Your task to perform on an android device: Open the contacts app Image 0: 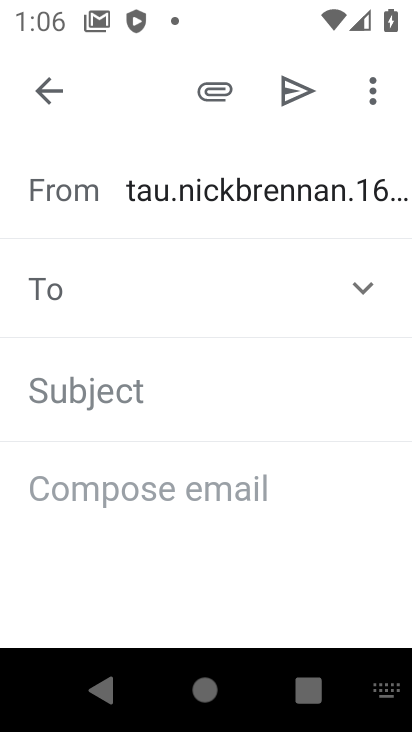
Step 0: press home button
Your task to perform on an android device: Open the contacts app Image 1: 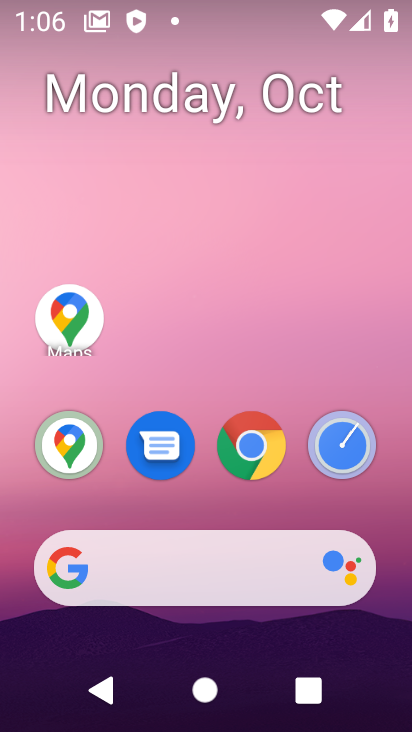
Step 1: drag from (203, 500) to (215, 218)
Your task to perform on an android device: Open the contacts app Image 2: 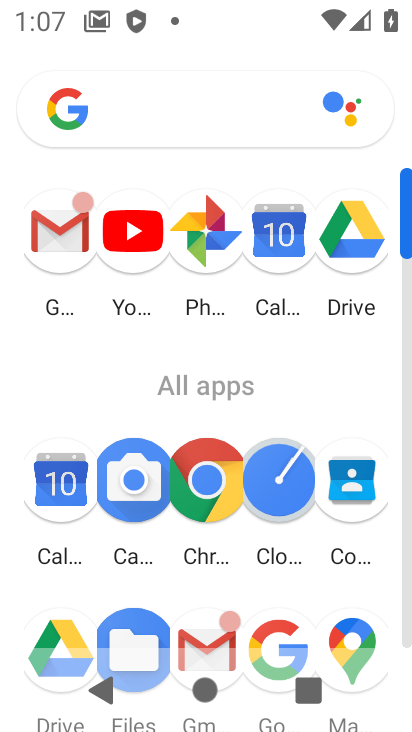
Step 2: click (333, 499)
Your task to perform on an android device: Open the contacts app Image 3: 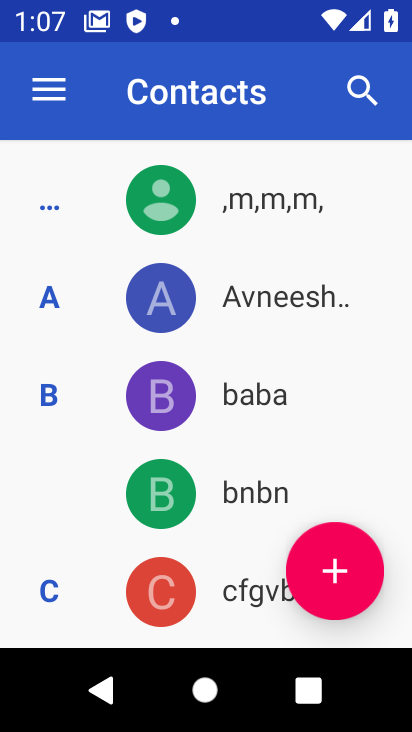
Step 3: task complete